Your task to perform on an android device: When is my next appointment? Image 0: 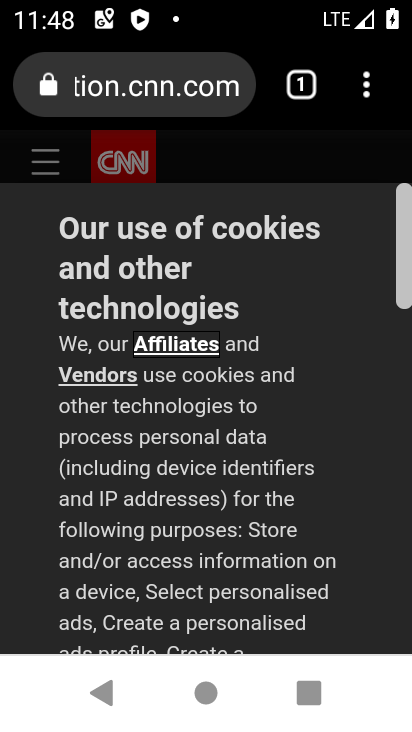
Step 0: press home button
Your task to perform on an android device: When is my next appointment? Image 1: 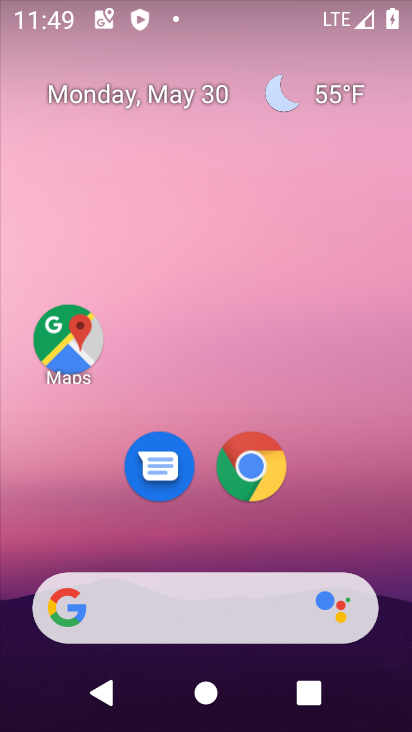
Step 1: drag from (368, 553) to (407, 249)
Your task to perform on an android device: When is my next appointment? Image 2: 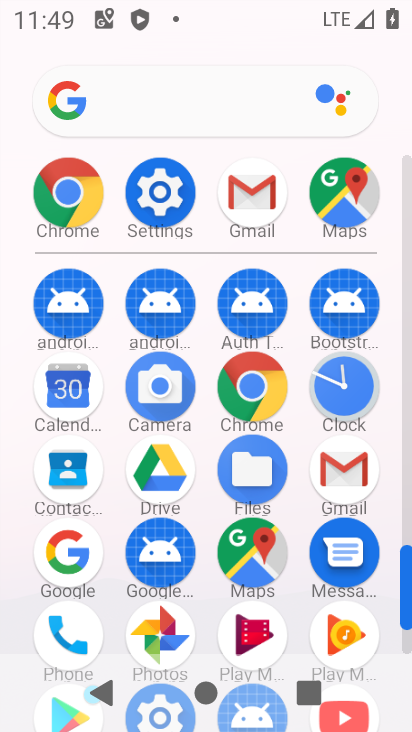
Step 2: drag from (391, 269) to (404, 80)
Your task to perform on an android device: When is my next appointment? Image 3: 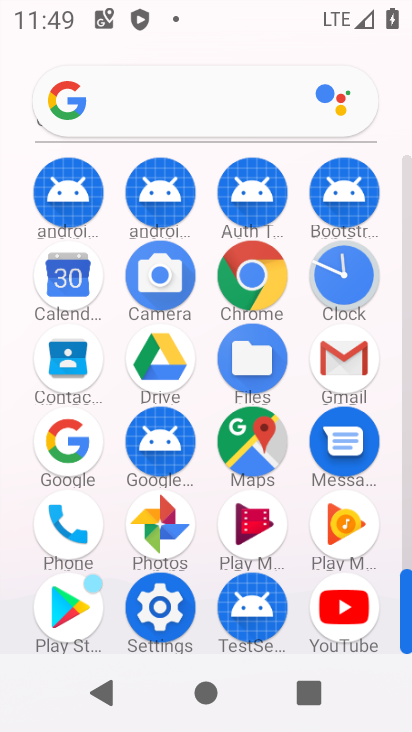
Step 3: click (75, 274)
Your task to perform on an android device: When is my next appointment? Image 4: 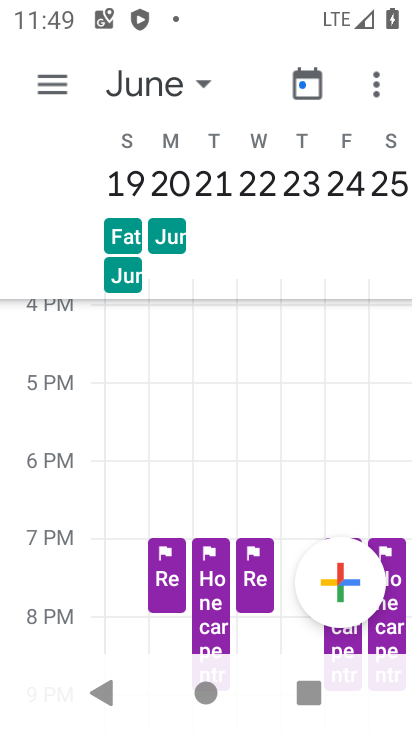
Step 4: click (187, 89)
Your task to perform on an android device: When is my next appointment? Image 5: 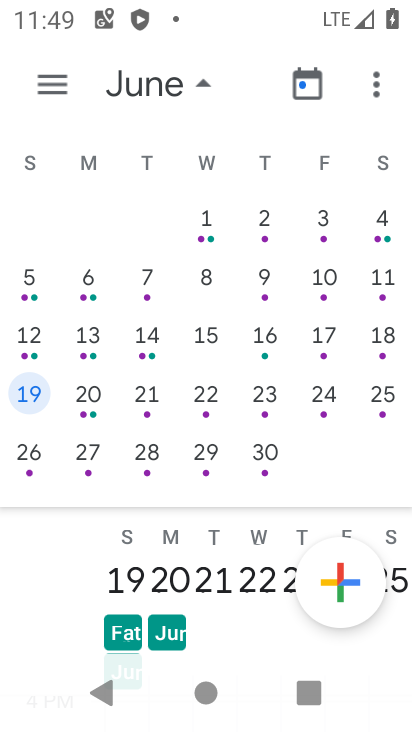
Step 5: drag from (82, 262) to (119, 263)
Your task to perform on an android device: When is my next appointment? Image 6: 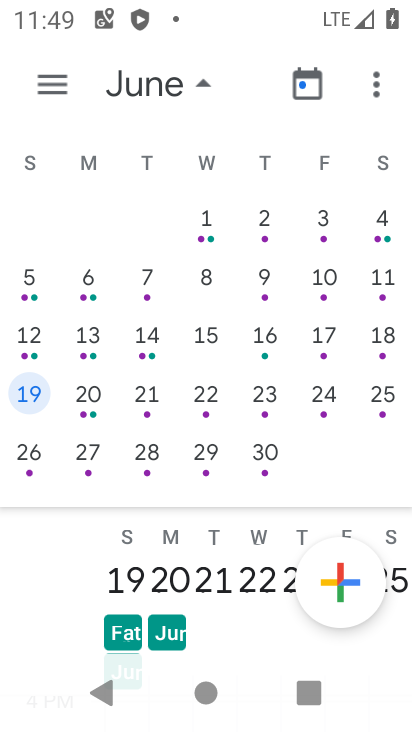
Step 6: click (98, 278)
Your task to perform on an android device: When is my next appointment? Image 7: 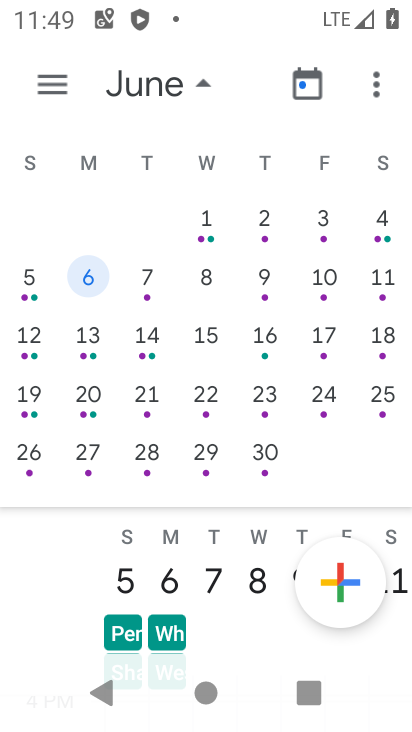
Step 7: click (49, 81)
Your task to perform on an android device: When is my next appointment? Image 8: 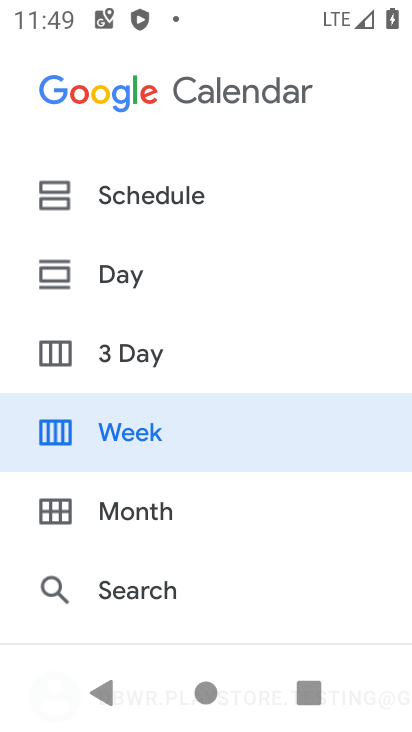
Step 8: click (123, 190)
Your task to perform on an android device: When is my next appointment? Image 9: 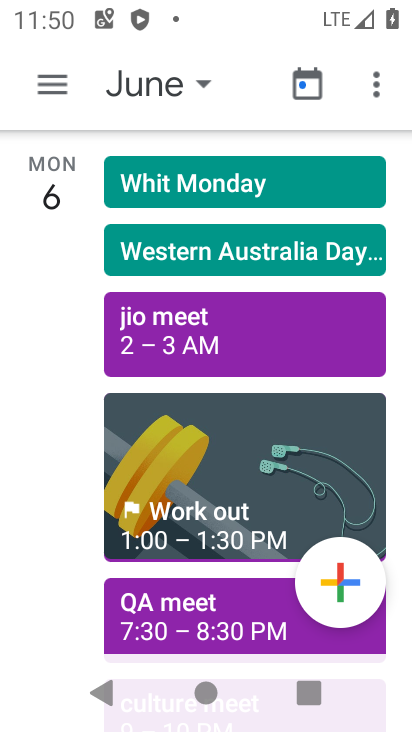
Step 9: drag from (253, 500) to (248, 429)
Your task to perform on an android device: When is my next appointment? Image 10: 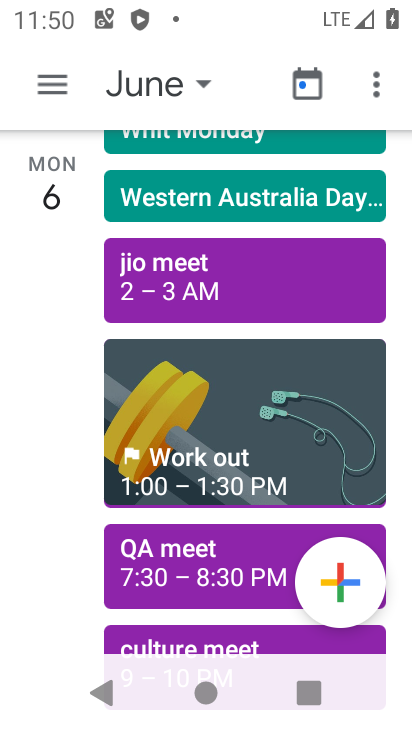
Step 10: click (236, 288)
Your task to perform on an android device: When is my next appointment? Image 11: 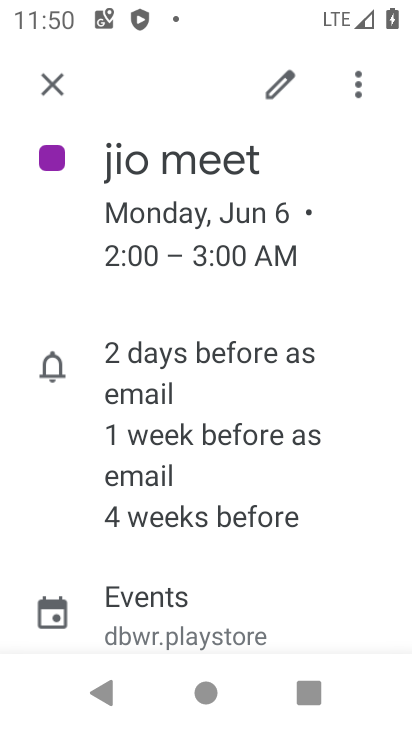
Step 11: task complete